Your task to perform on an android device: turn off wifi Image 0: 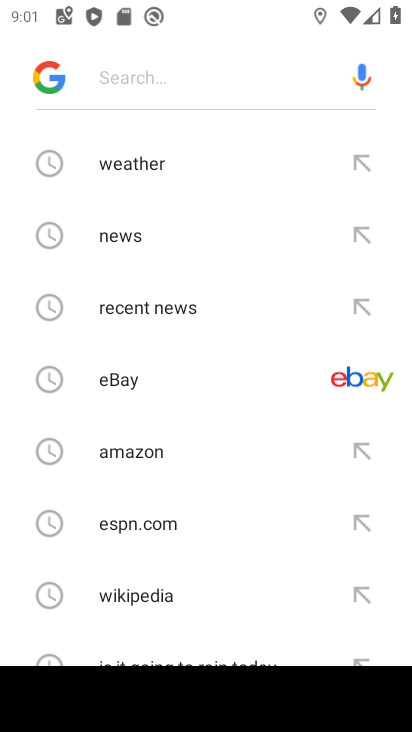
Step 0: press home button
Your task to perform on an android device: turn off wifi Image 1: 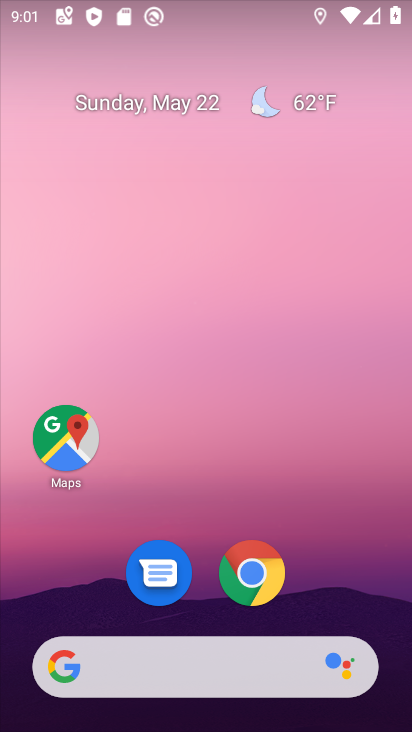
Step 1: drag from (171, 663) to (266, 18)
Your task to perform on an android device: turn off wifi Image 2: 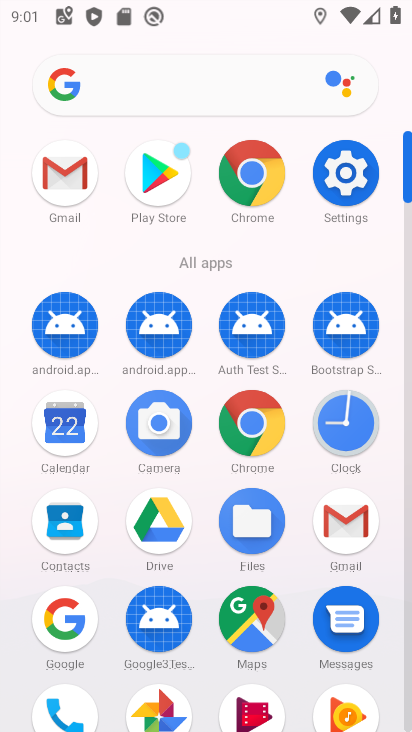
Step 2: click (345, 164)
Your task to perform on an android device: turn off wifi Image 3: 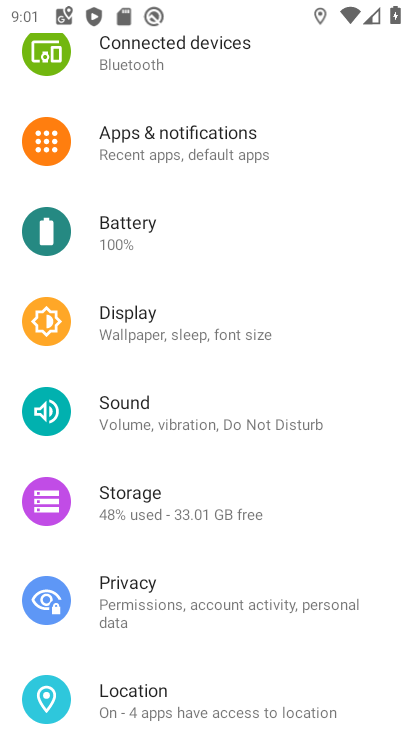
Step 3: drag from (244, 198) to (222, 712)
Your task to perform on an android device: turn off wifi Image 4: 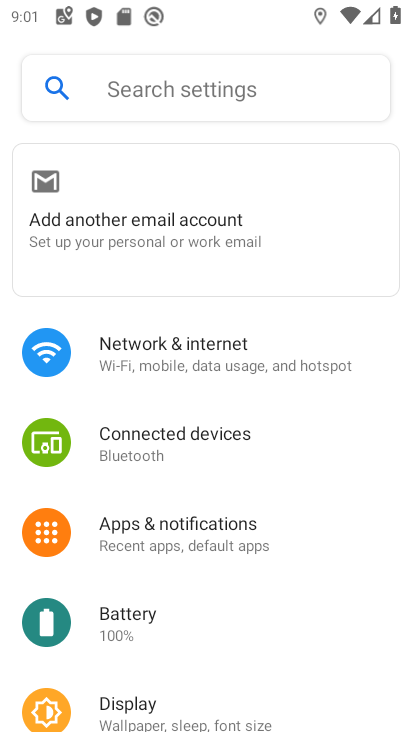
Step 4: click (194, 355)
Your task to perform on an android device: turn off wifi Image 5: 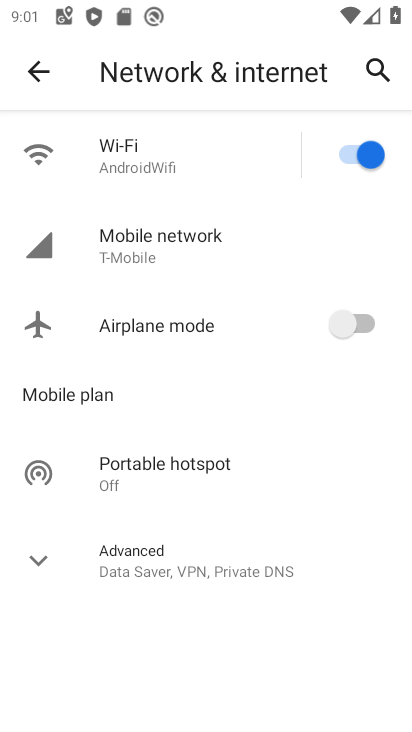
Step 5: click (351, 156)
Your task to perform on an android device: turn off wifi Image 6: 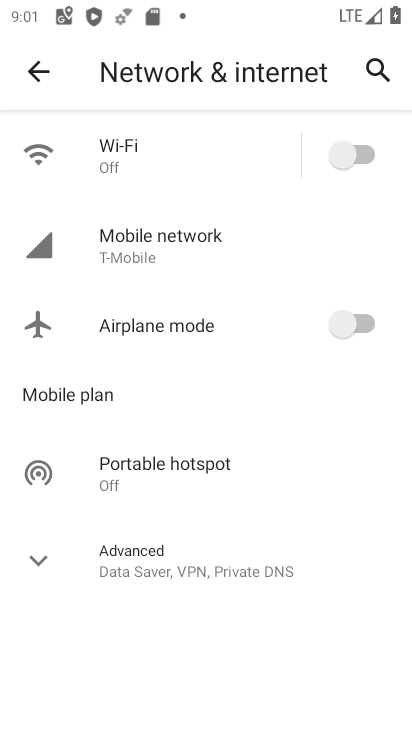
Step 6: task complete